Your task to perform on an android device: Open the calendar app, open the side menu, and click the "Day" option Image 0: 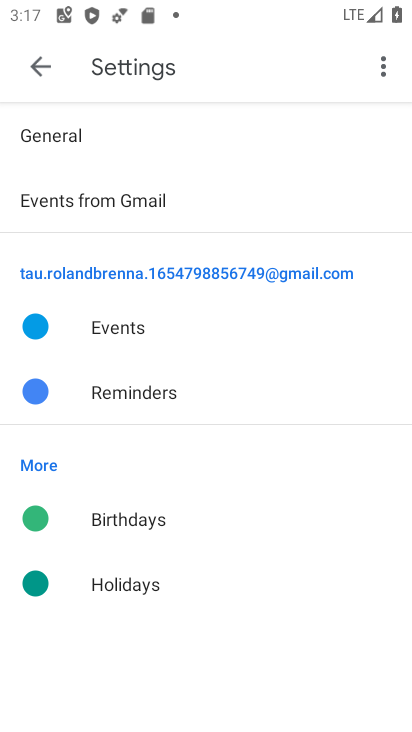
Step 0: press home button
Your task to perform on an android device: Open the calendar app, open the side menu, and click the "Day" option Image 1: 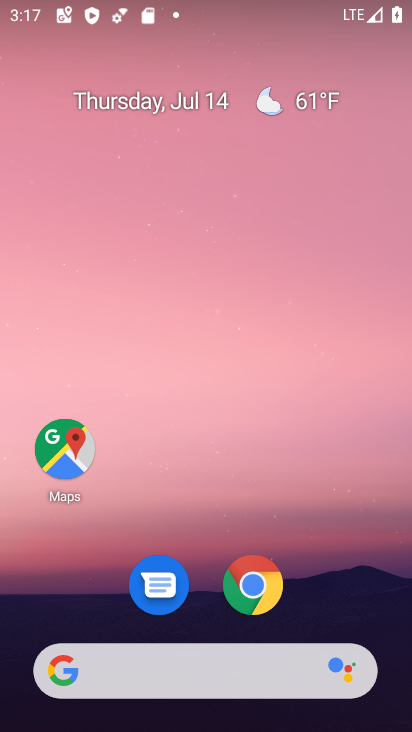
Step 1: drag from (321, 583) to (333, 79)
Your task to perform on an android device: Open the calendar app, open the side menu, and click the "Day" option Image 2: 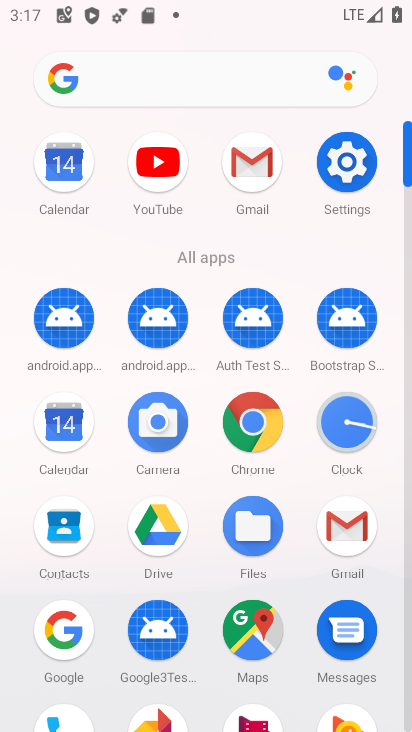
Step 2: click (54, 152)
Your task to perform on an android device: Open the calendar app, open the side menu, and click the "Day" option Image 3: 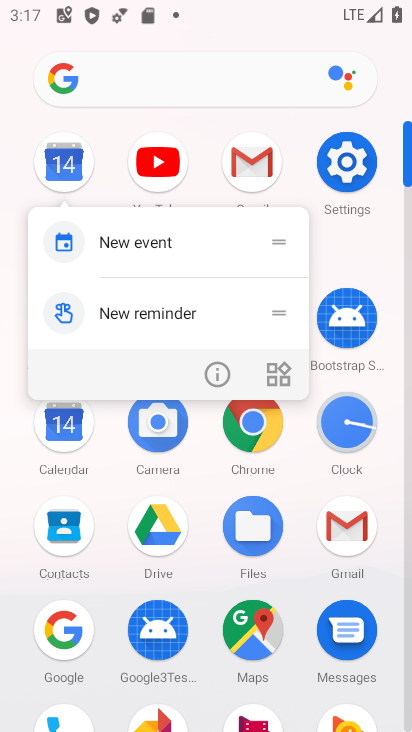
Step 3: click (67, 169)
Your task to perform on an android device: Open the calendar app, open the side menu, and click the "Day" option Image 4: 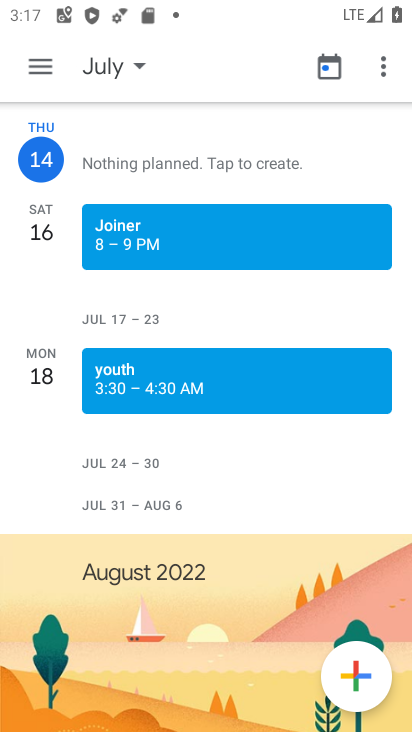
Step 4: click (42, 66)
Your task to perform on an android device: Open the calendar app, open the side menu, and click the "Day" option Image 5: 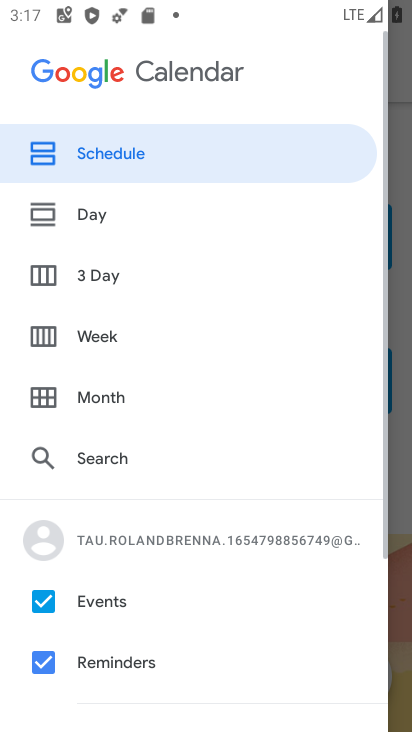
Step 5: click (38, 210)
Your task to perform on an android device: Open the calendar app, open the side menu, and click the "Day" option Image 6: 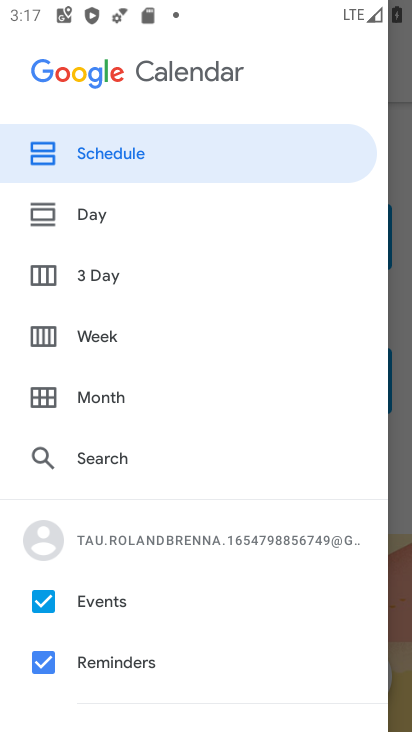
Step 6: click (38, 208)
Your task to perform on an android device: Open the calendar app, open the side menu, and click the "Day" option Image 7: 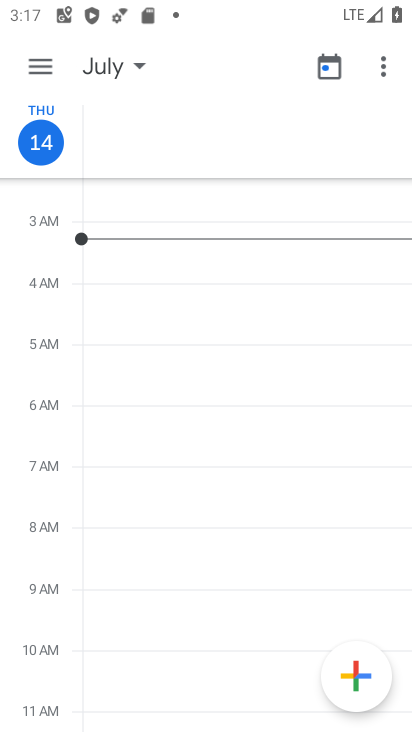
Step 7: task complete